Your task to perform on an android device: check the backup settings in the google photos Image 0: 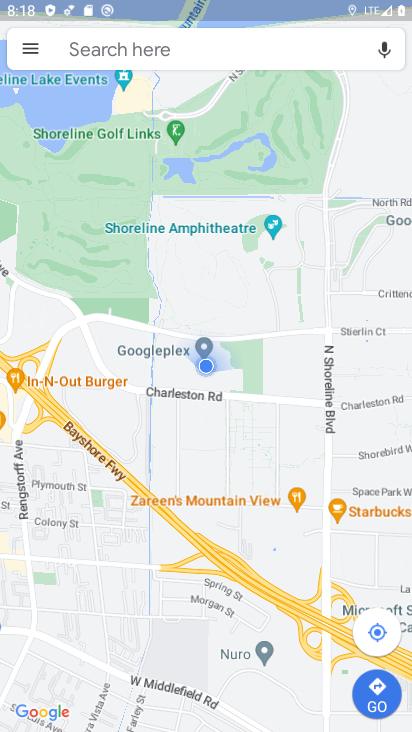
Step 0: press home button
Your task to perform on an android device: check the backup settings in the google photos Image 1: 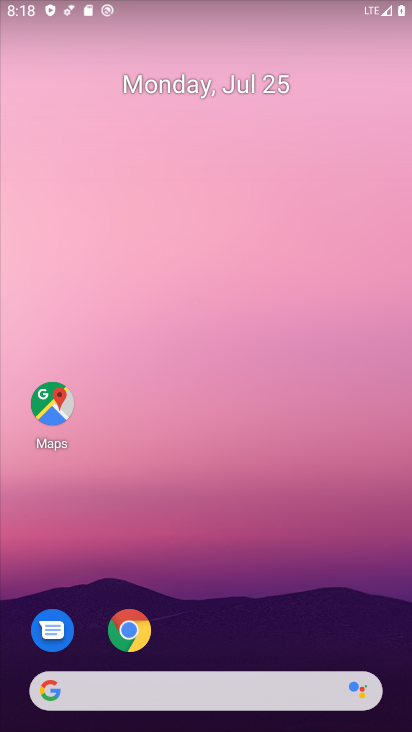
Step 1: drag from (47, 601) to (289, 62)
Your task to perform on an android device: check the backup settings in the google photos Image 2: 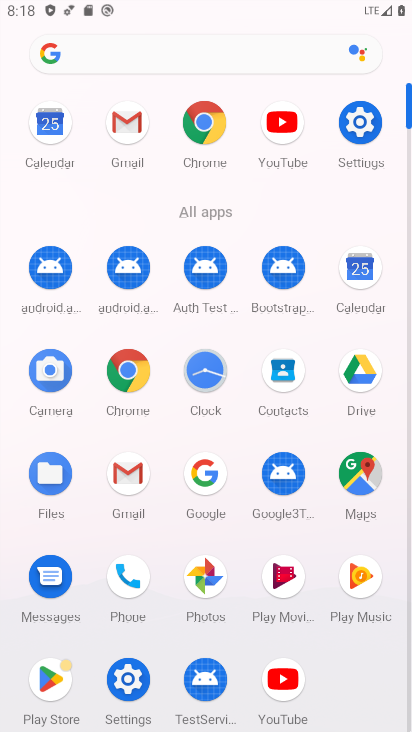
Step 2: click (206, 574)
Your task to perform on an android device: check the backup settings in the google photos Image 3: 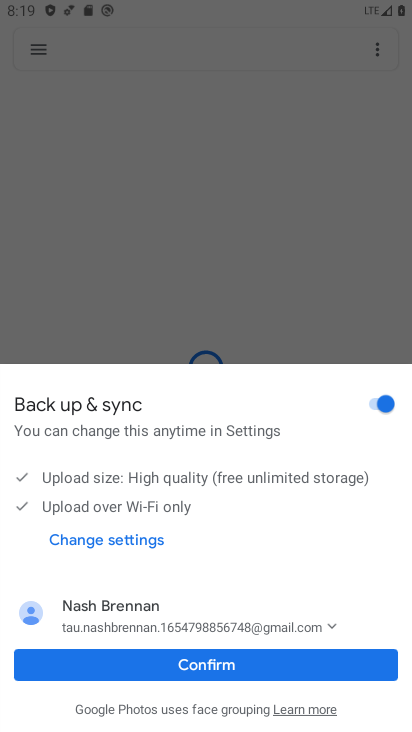
Step 3: click (164, 669)
Your task to perform on an android device: check the backup settings in the google photos Image 4: 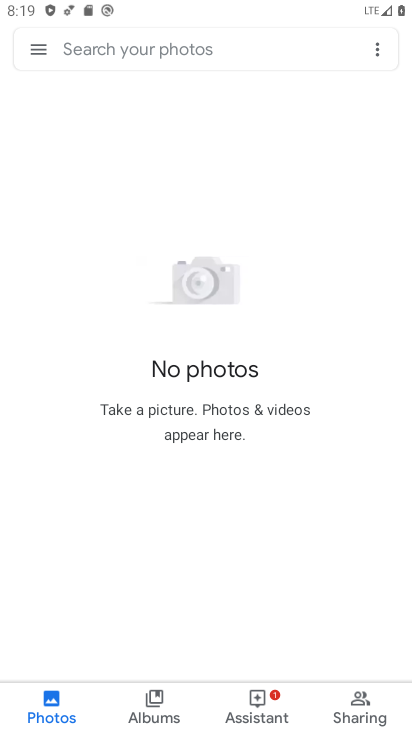
Step 4: click (34, 56)
Your task to perform on an android device: check the backup settings in the google photos Image 5: 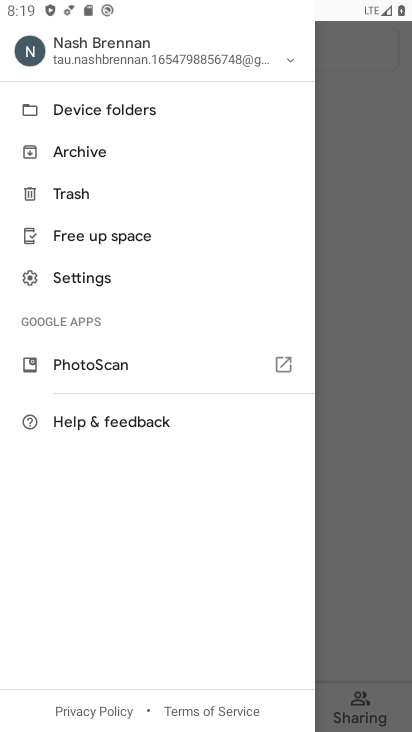
Step 5: click (88, 287)
Your task to perform on an android device: check the backup settings in the google photos Image 6: 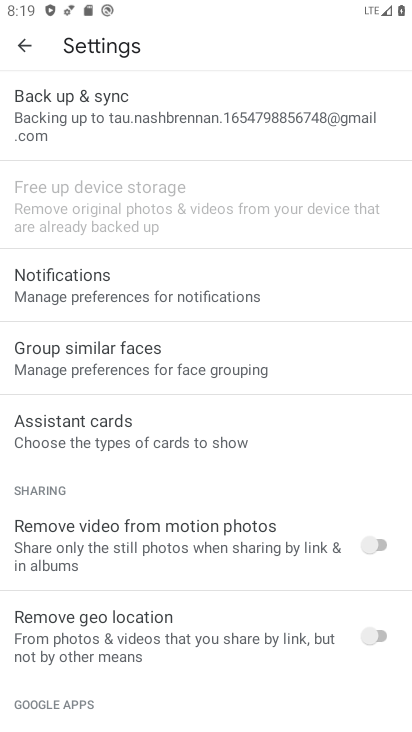
Step 6: click (116, 108)
Your task to perform on an android device: check the backup settings in the google photos Image 7: 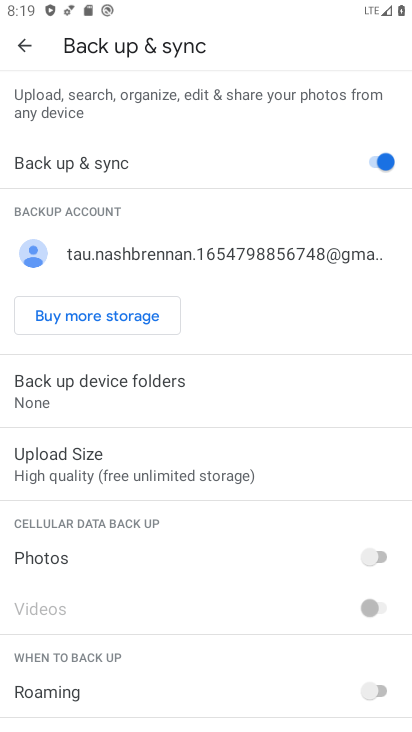
Step 7: task complete